Your task to perform on an android device: Clear the cart on walmart. Image 0: 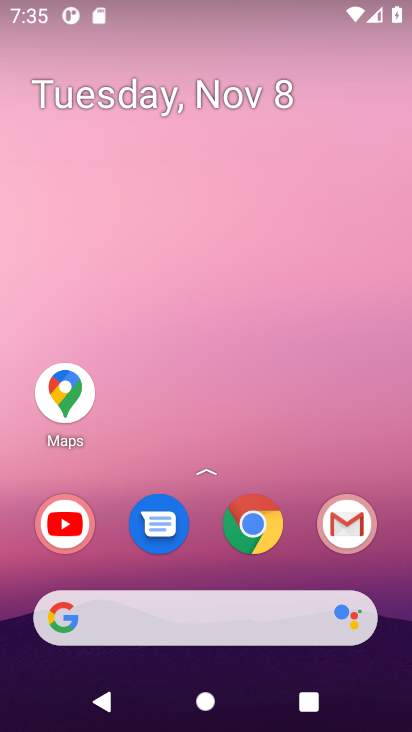
Step 0: click (247, 536)
Your task to perform on an android device: Clear the cart on walmart. Image 1: 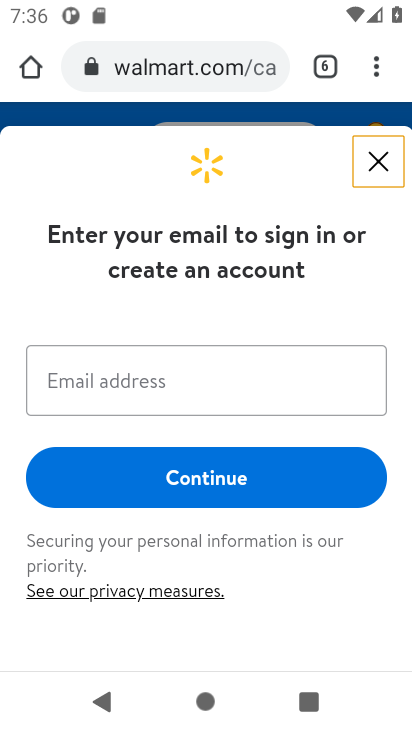
Step 1: click (386, 164)
Your task to perform on an android device: Clear the cart on walmart. Image 2: 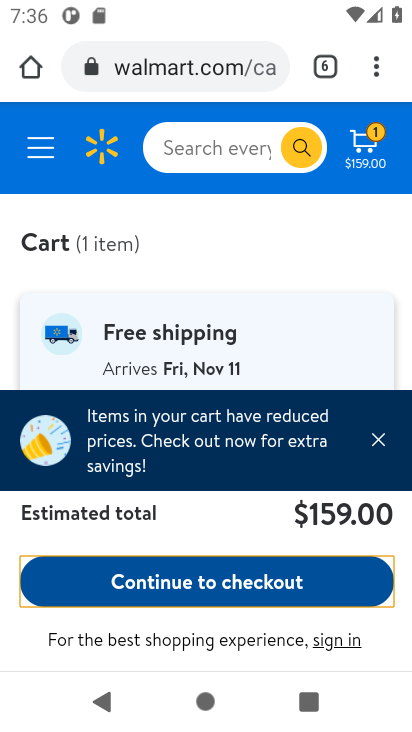
Step 2: click (360, 145)
Your task to perform on an android device: Clear the cart on walmart. Image 3: 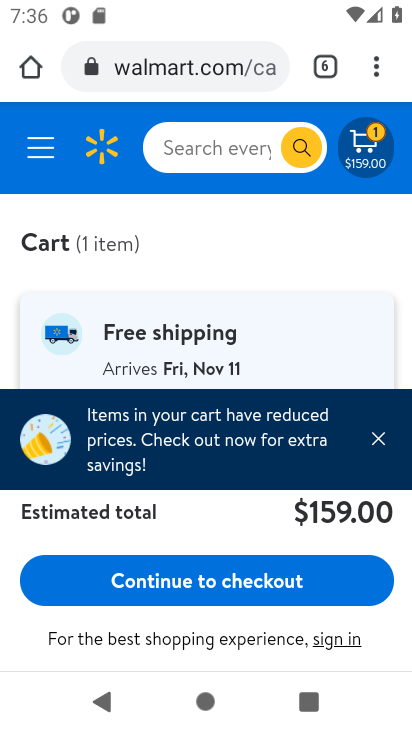
Step 3: drag from (253, 414) to (268, 226)
Your task to perform on an android device: Clear the cart on walmart. Image 4: 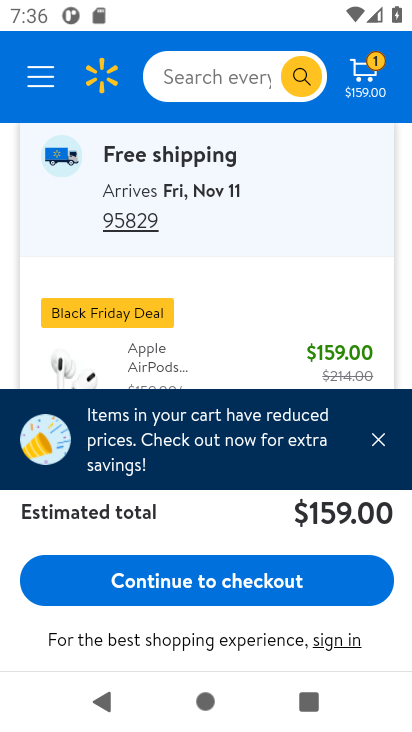
Step 4: click (376, 445)
Your task to perform on an android device: Clear the cart on walmart. Image 5: 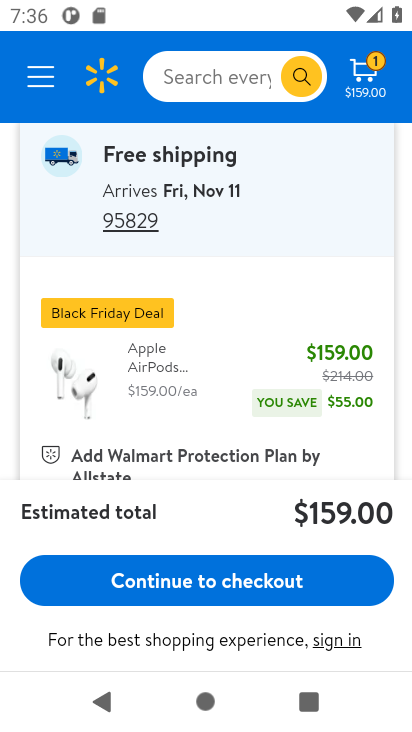
Step 5: drag from (186, 449) to (183, 327)
Your task to perform on an android device: Clear the cart on walmart. Image 6: 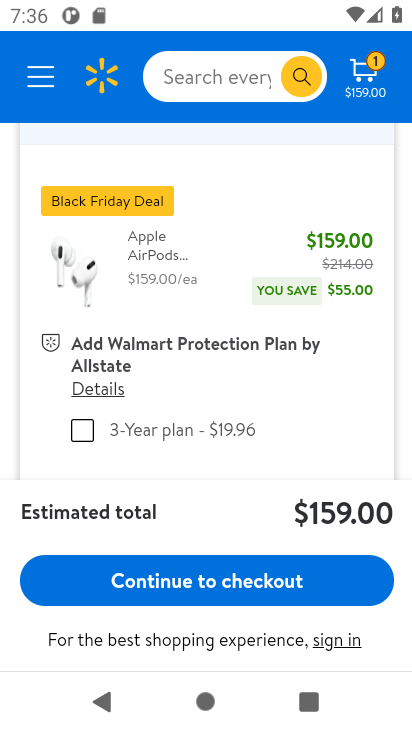
Step 6: drag from (167, 439) to (176, 270)
Your task to perform on an android device: Clear the cart on walmart. Image 7: 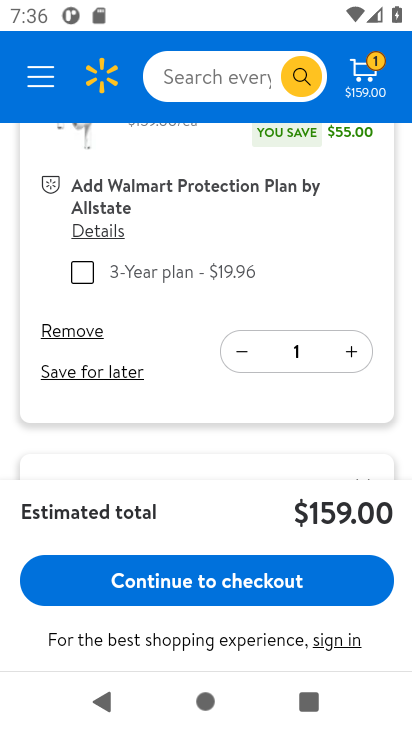
Step 7: click (86, 332)
Your task to perform on an android device: Clear the cart on walmart. Image 8: 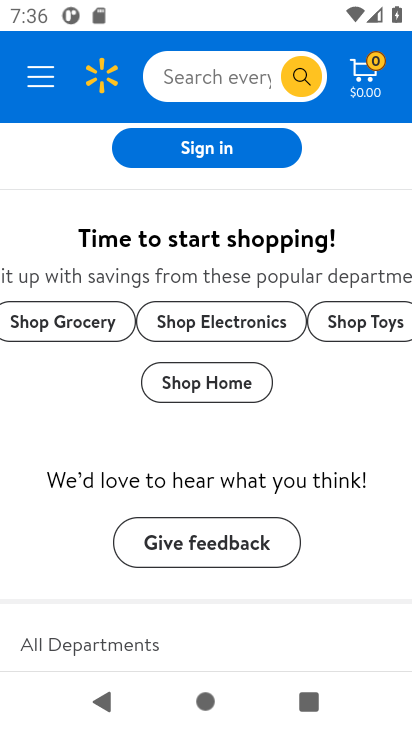
Step 8: task complete